Your task to perform on an android device: check storage Image 0: 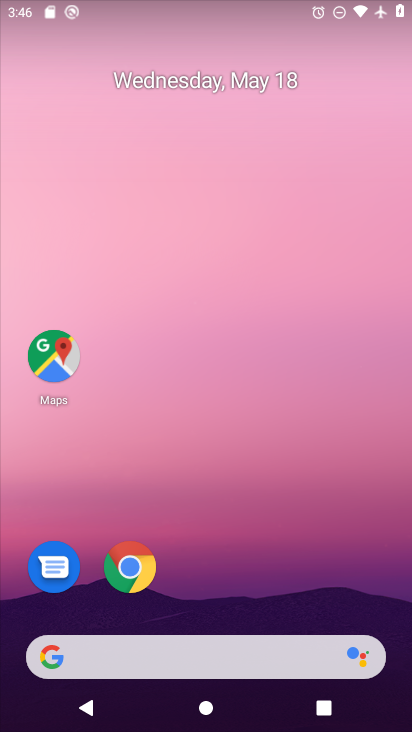
Step 0: drag from (252, 592) to (302, 95)
Your task to perform on an android device: check storage Image 1: 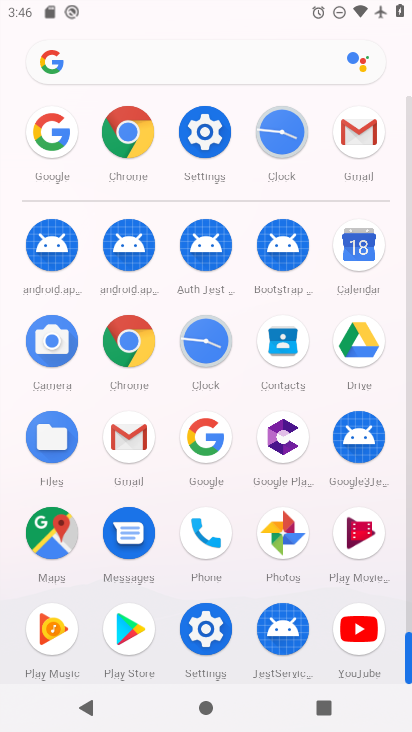
Step 1: click (206, 122)
Your task to perform on an android device: check storage Image 2: 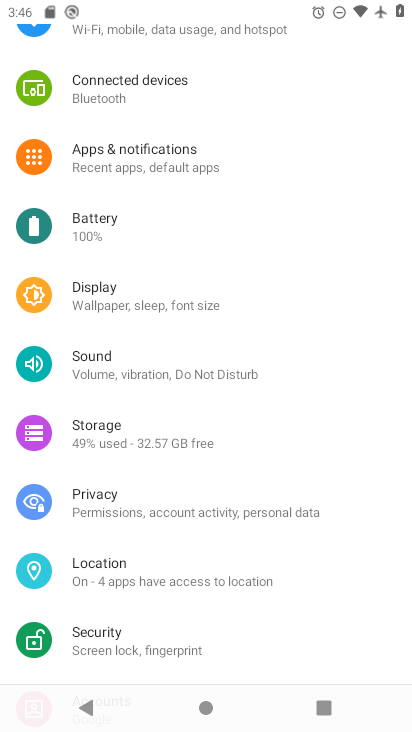
Step 2: click (132, 441)
Your task to perform on an android device: check storage Image 3: 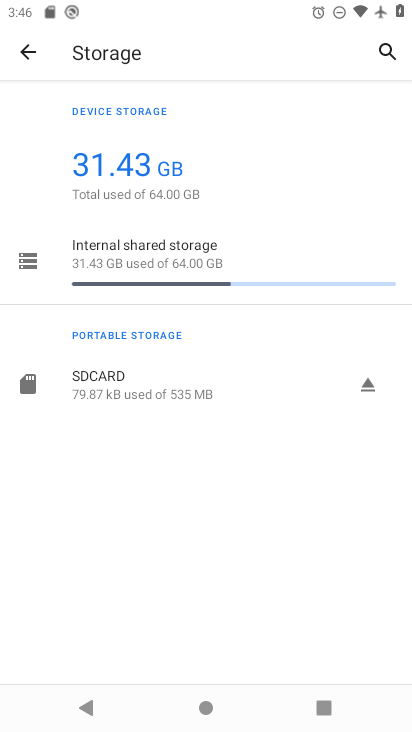
Step 3: task complete